Your task to perform on an android device: check android version Image 0: 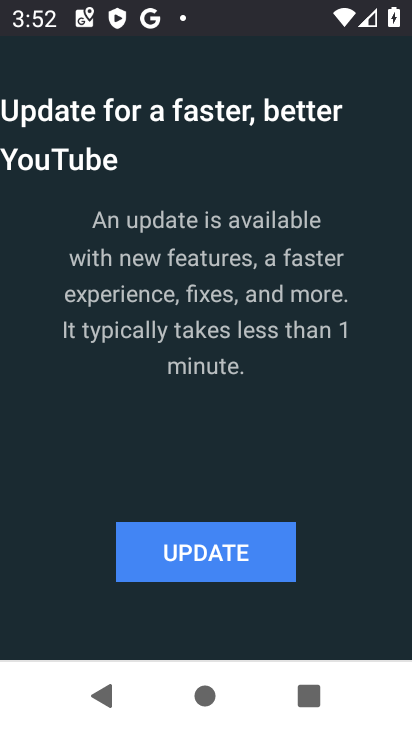
Step 0: press back button
Your task to perform on an android device: check android version Image 1: 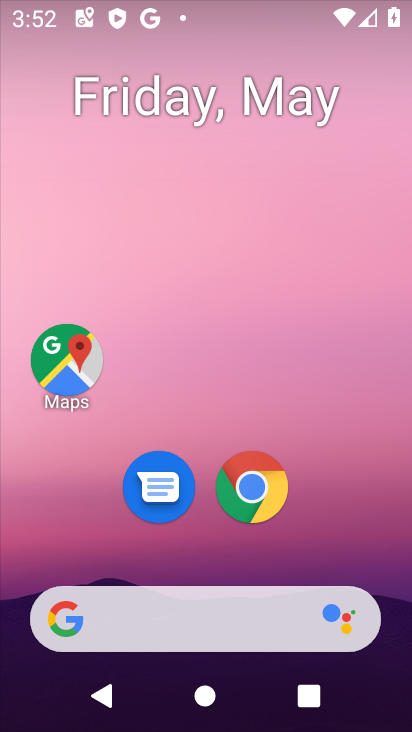
Step 1: drag from (384, 595) to (324, 47)
Your task to perform on an android device: check android version Image 2: 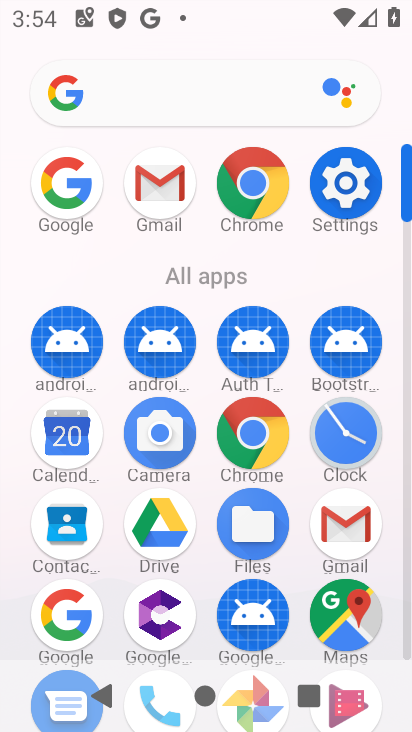
Step 2: click (353, 203)
Your task to perform on an android device: check android version Image 3: 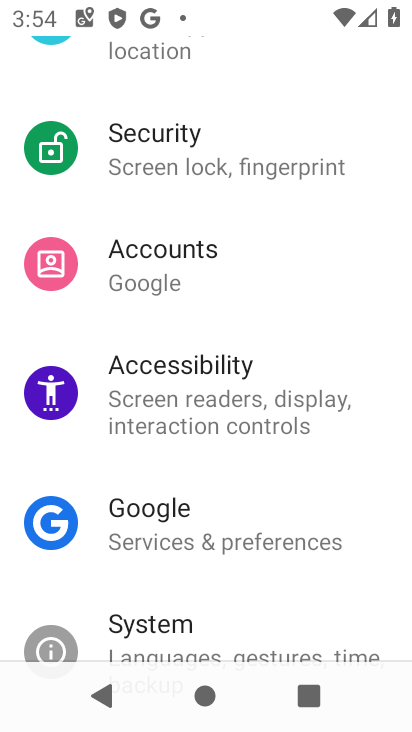
Step 3: drag from (186, 621) to (268, 33)
Your task to perform on an android device: check android version Image 4: 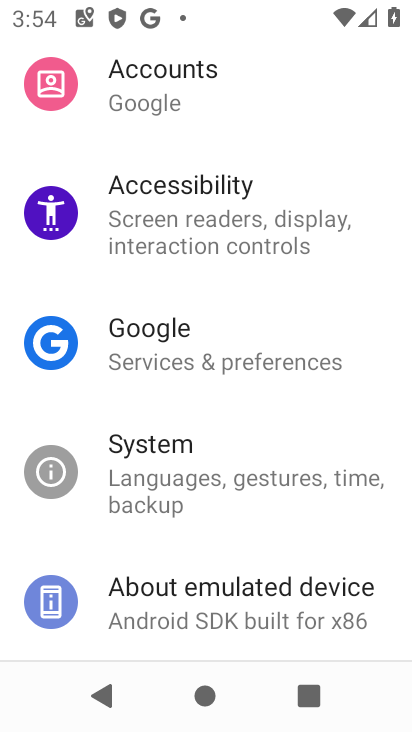
Step 4: click (167, 607)
Your task to perform on an android device: check android version Image 5: 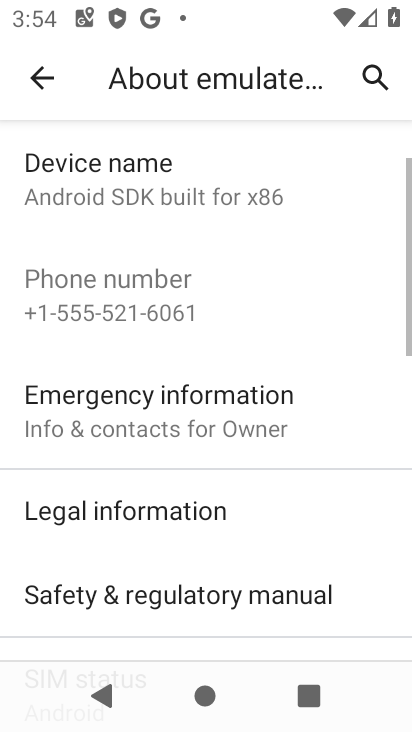
Step 5: drag from (173, 582) to (217, 140)
Your task to perform on an android device: check android version Image 6: 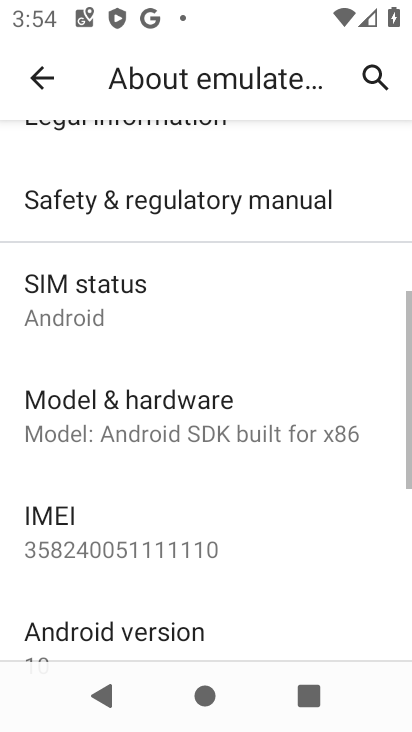
Step 6: click (136, 650)
Your task to perform on an android device: check android version Image 7: 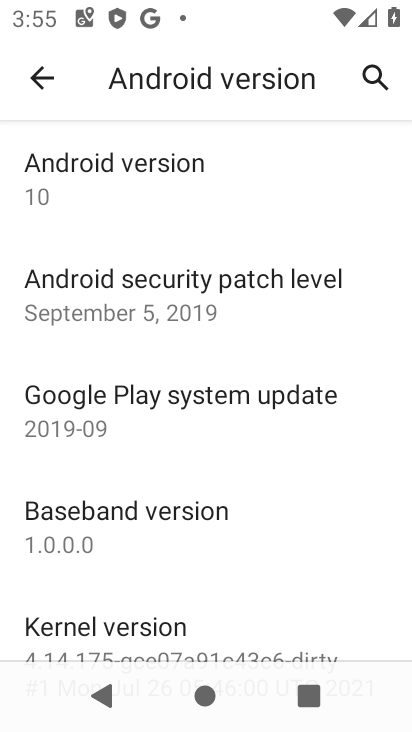
Step 7: task complete